Your task to perform on an android device: turn on airplane mode Image 0: 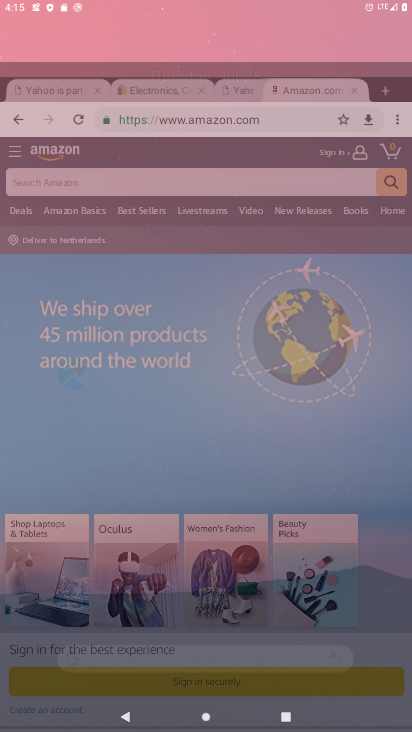
Step 0: click (214, 102)
Your task to perform on an android device: turn on airplane mode Image 1: 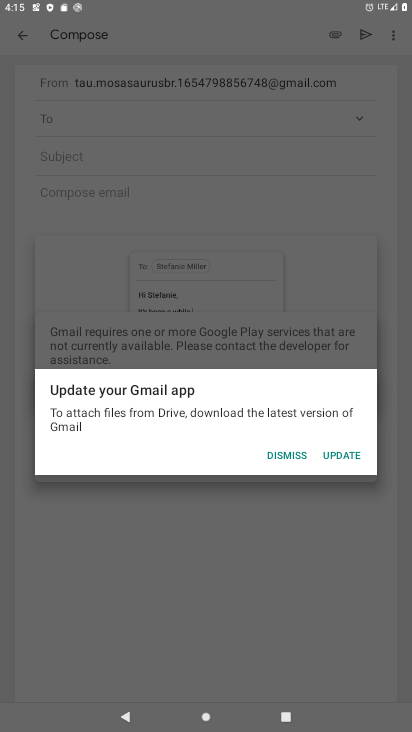
Step 1: press home button
Your task to perform on an android device: turn on airplane mode Image 2: 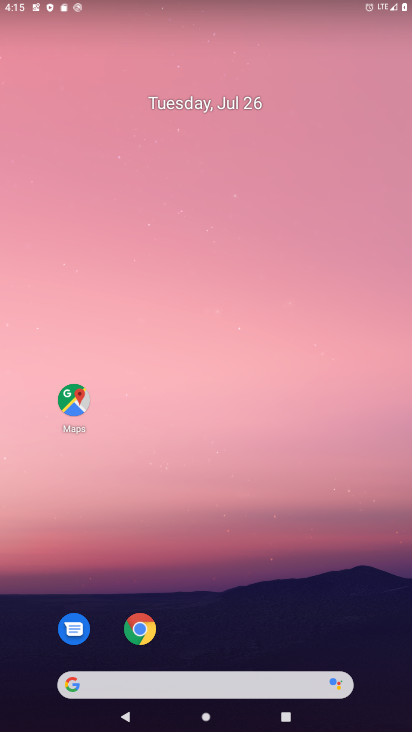
Step 2: drag from (224, 305) to (224, 180)
Your task to perform on an android device: turn on airplane mode Image 3: 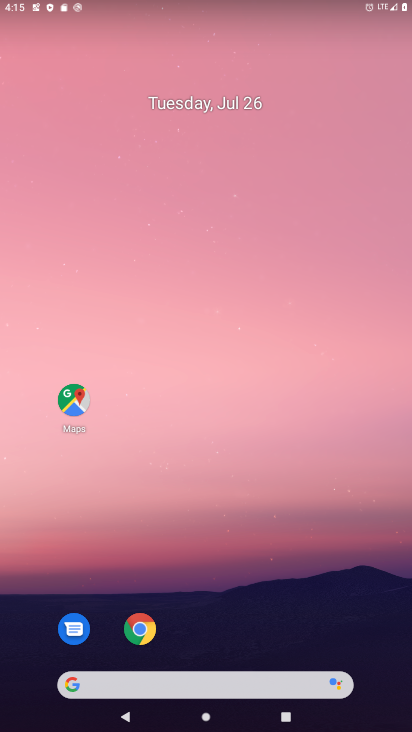
Step 3: drag from (233, 701) to (216, 117)
Your task to perform on an android device: turn on airplane mode Image 4: 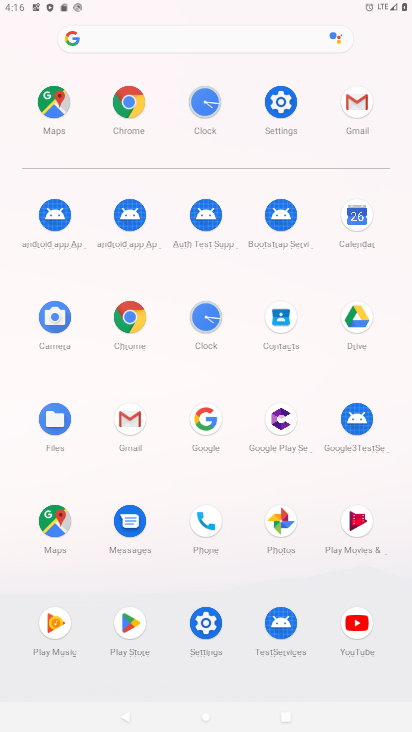
Step 4: click (284, 99)
Your task to perform on an android device: turn on airplane mode Image 5: 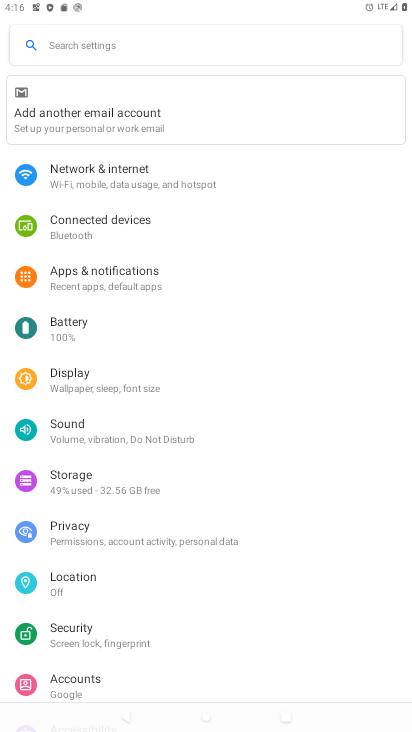
Step 5: click (90, 180)
Your task to perform on an android device: turn on airplane mode Image 6: 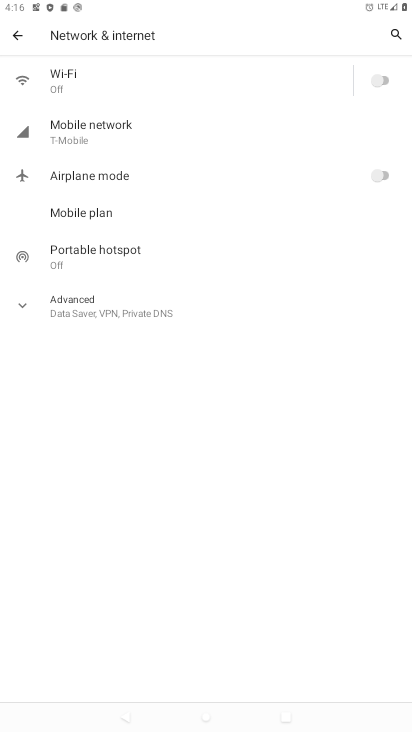
Step 6: click (388, 176)
Your task to perform on an android device: turn on airplane mode Image 7: 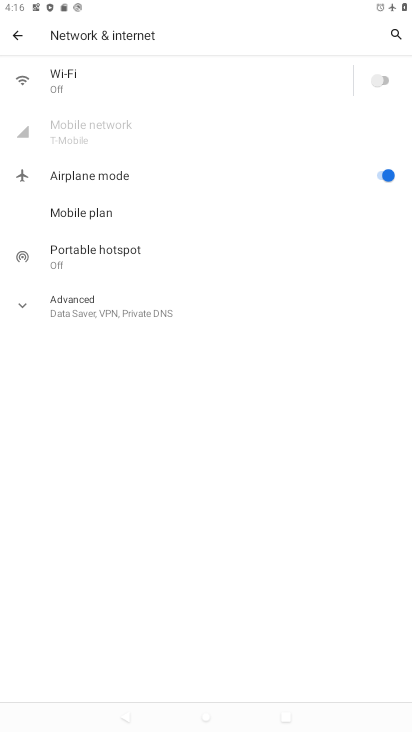
Step 7: task complete